Your task to perform on an android device: Go to privacy settings Image 0: 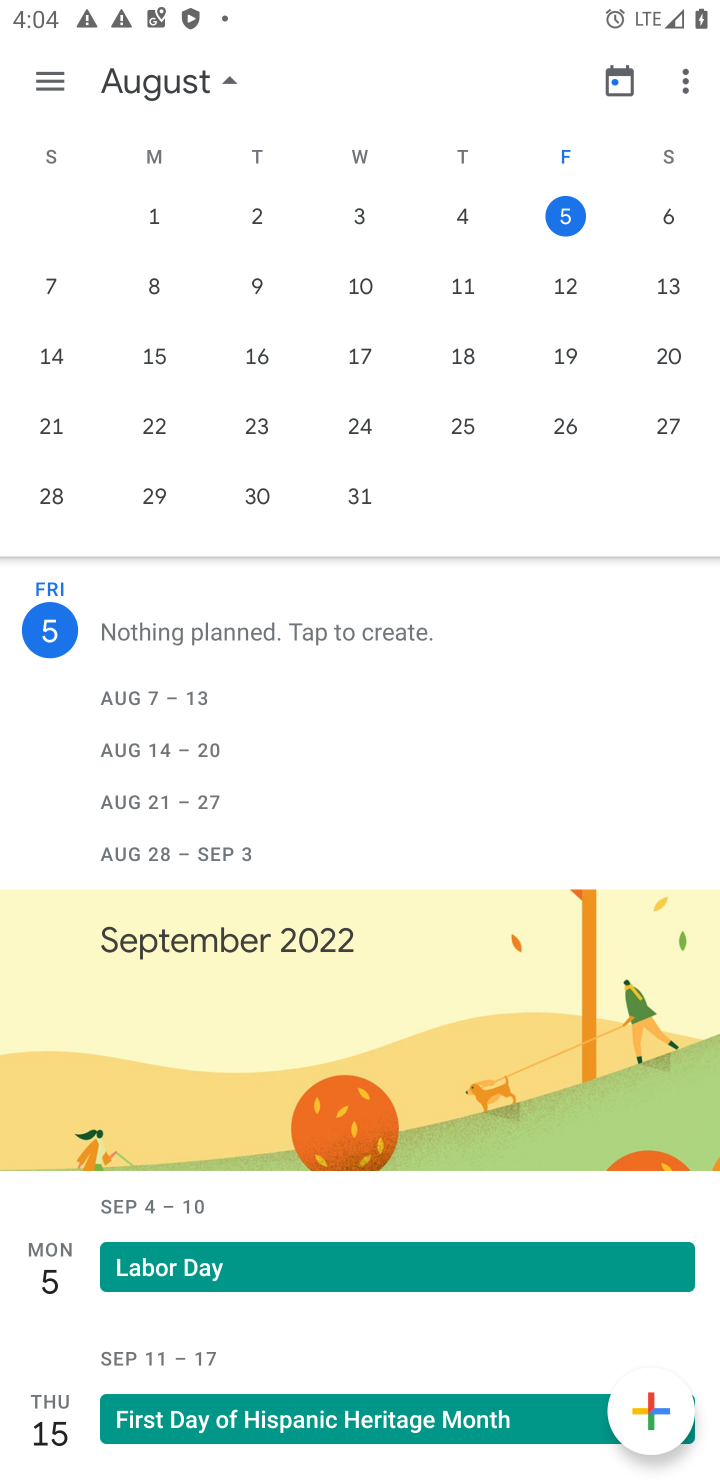
Step 0: press home button
Your task to perform on an android device: Go to privacy settings Image 1: 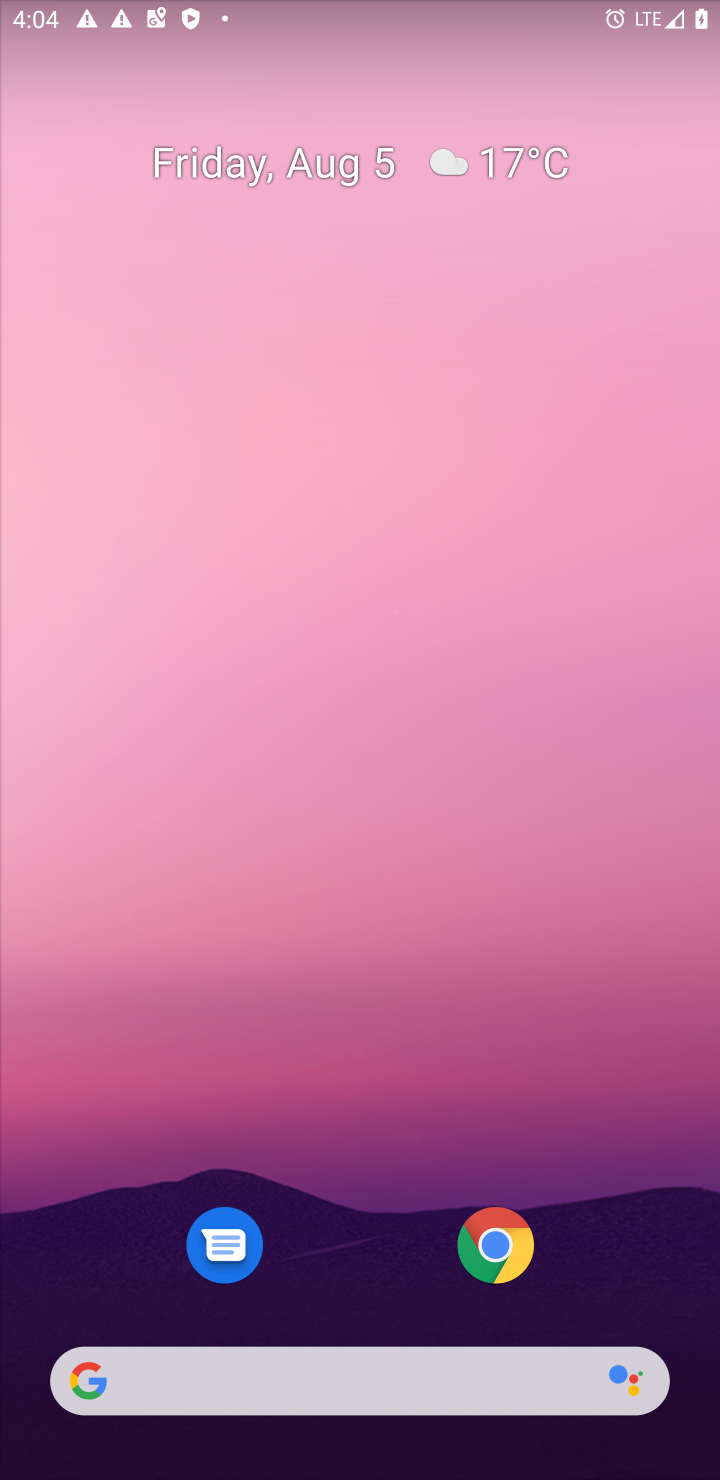
Step 1: drag from (5, 1361) to (473, 497)
Your task to perform on an android device: Go to privacy settings Image 2: 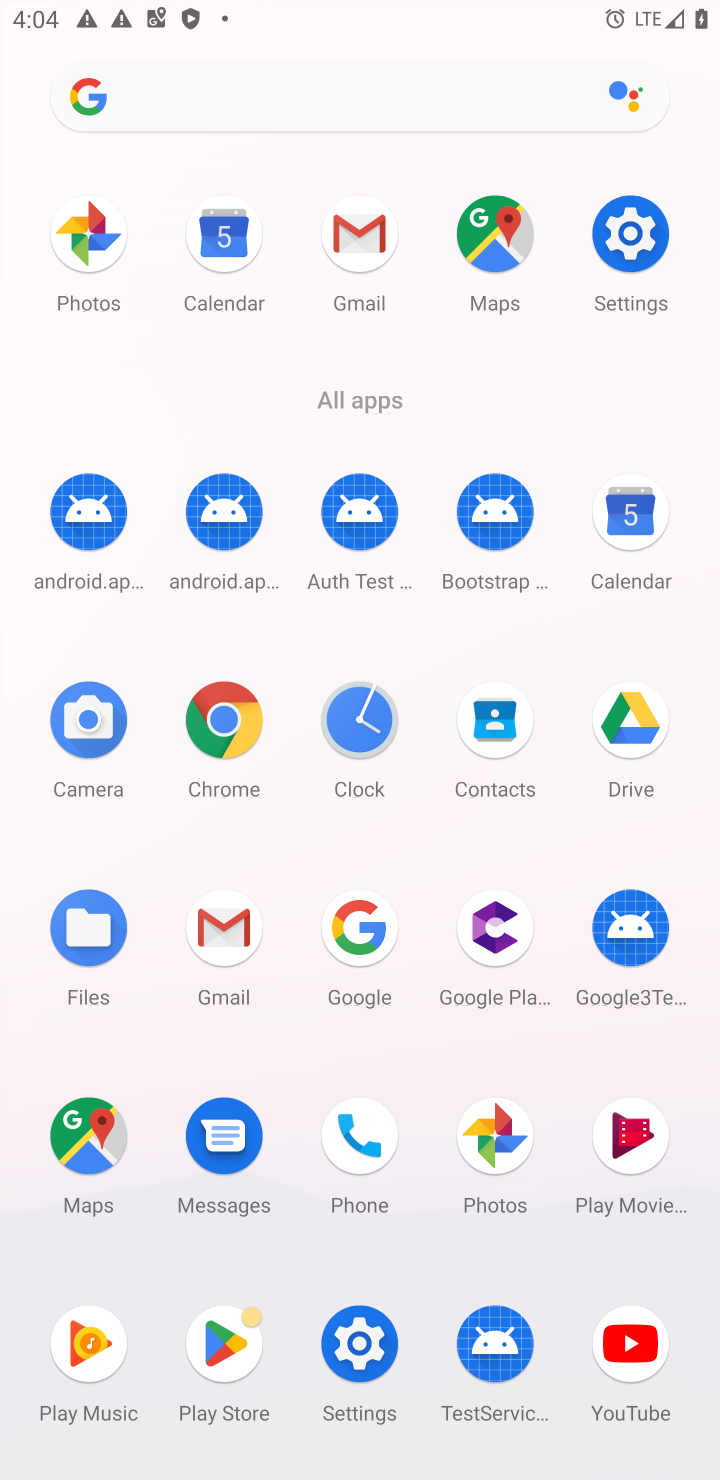
Step 2: click (355, 1359)
Your task to perform on an android device: Go to privacy settings Image 3: 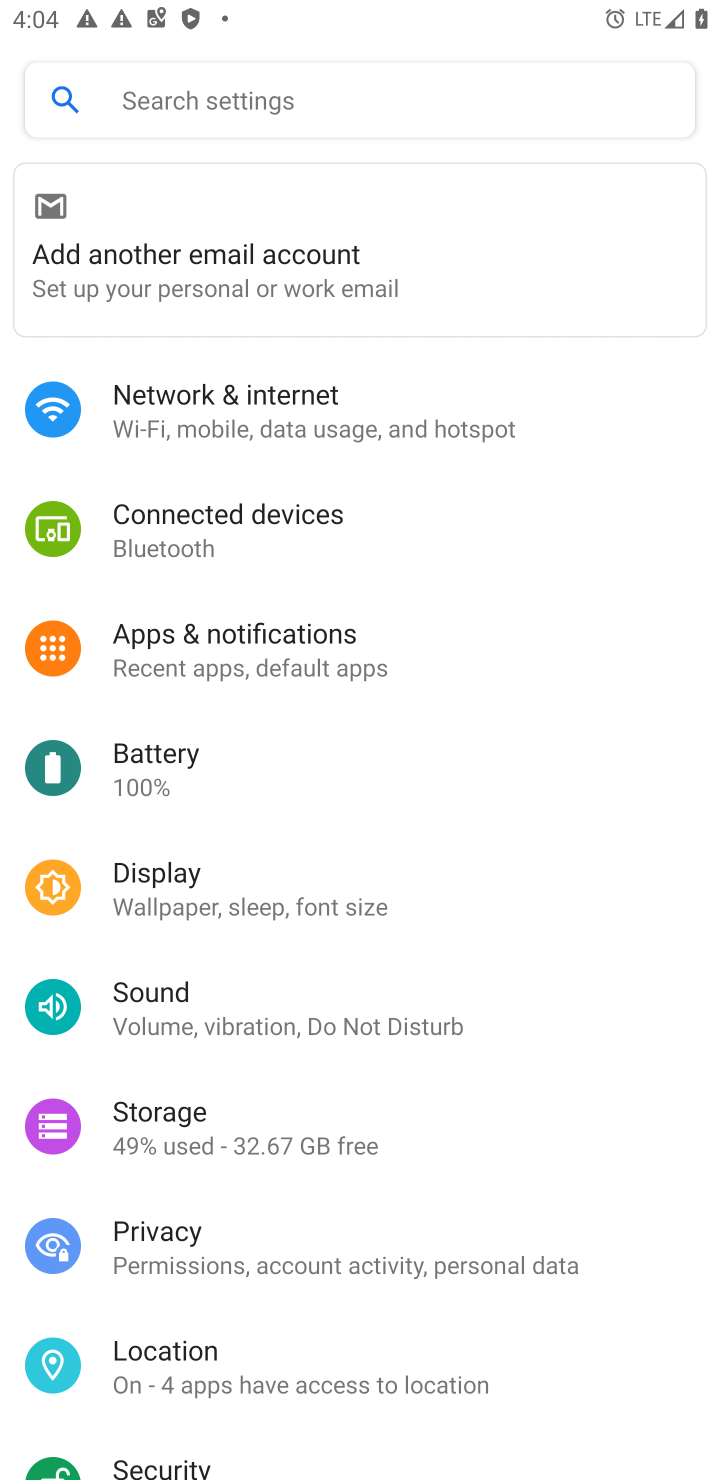
Step 3: click (317, 1250)
Your task to perform on an android device: Go to privacy settings Image 4: 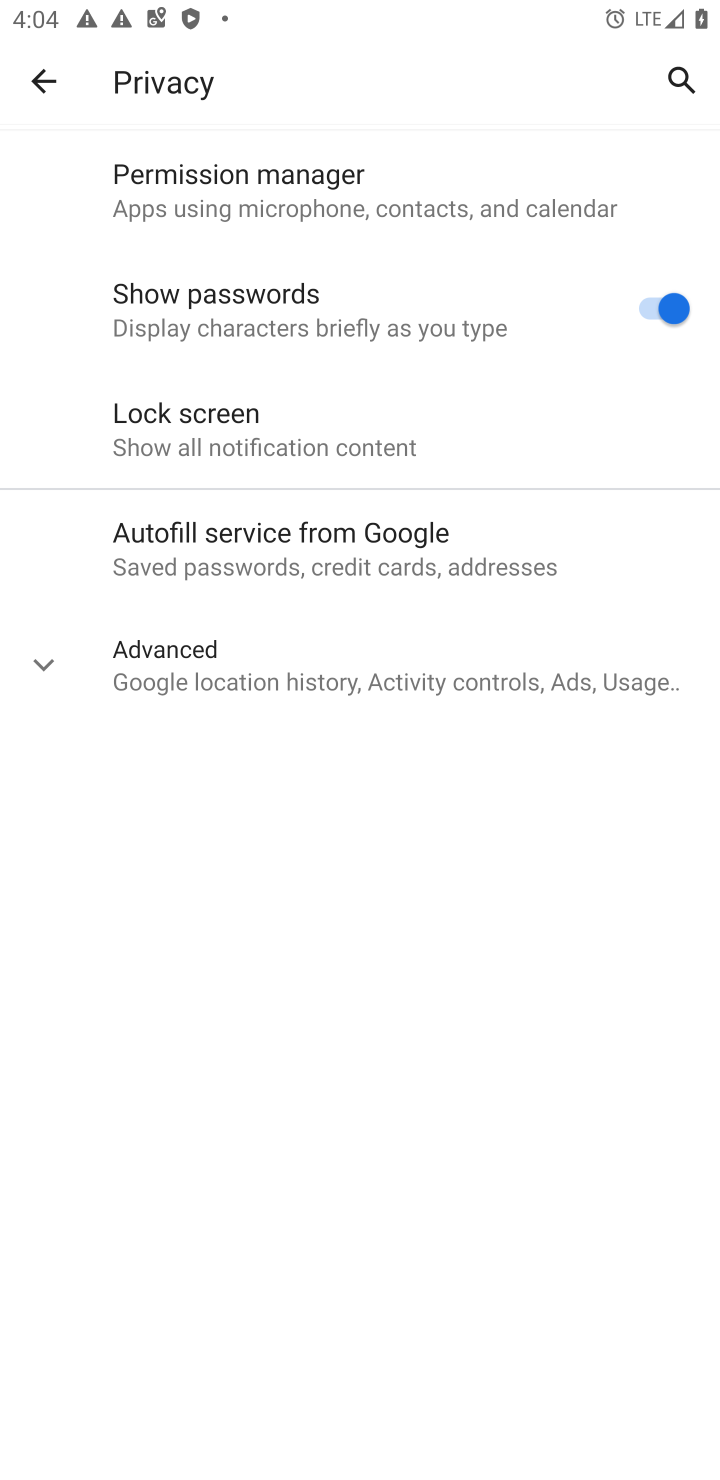
Step 4: task complete